Your task to perform on an android device: turn on improve location accuracy Image 0: 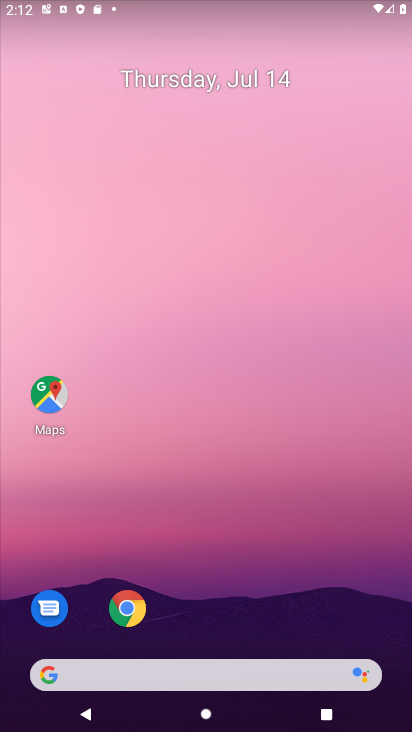
Step 0: drag from (381, 627) to (334, 187)
Your task to perform on an android device: turn on improve location accuracy Image 1: 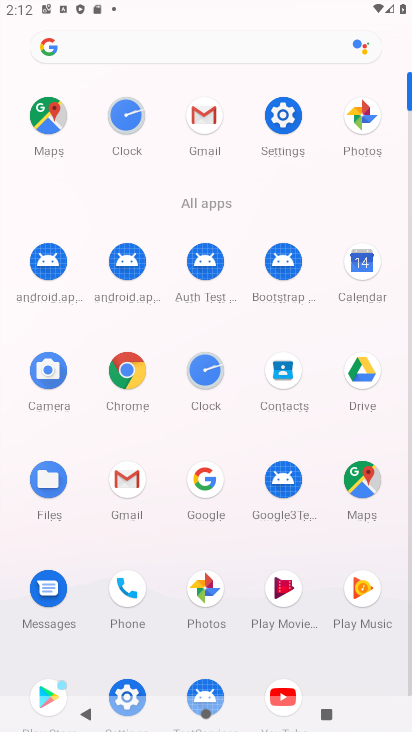
Step 1: click (125, 689)
Your task to perform on an android device: turn on improve location accuracy Image 2: 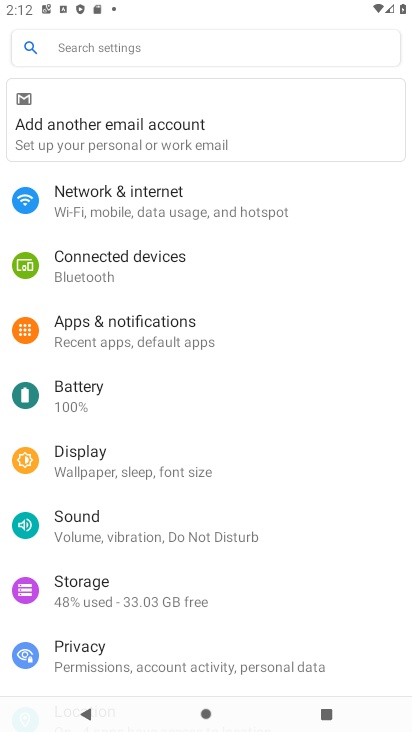
Step 2: drag from (348, 646) to (333, 257)
Your task to perform on an android device: turn on improve location accuracy Image 3: 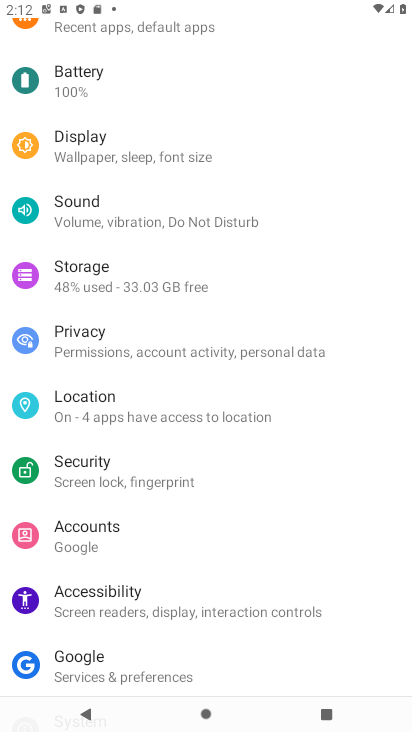
Step 3: drag from (296, 642) to (304, 501)
Your task to perform on an android device: turn on improve location accuracy Image 4: 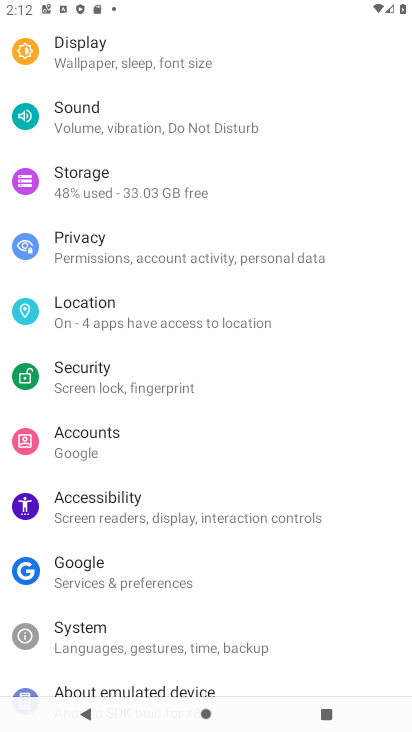
Step 4: click (71, 296)
Your task to perform on an android device: turn on improve location accuracy Image 5: 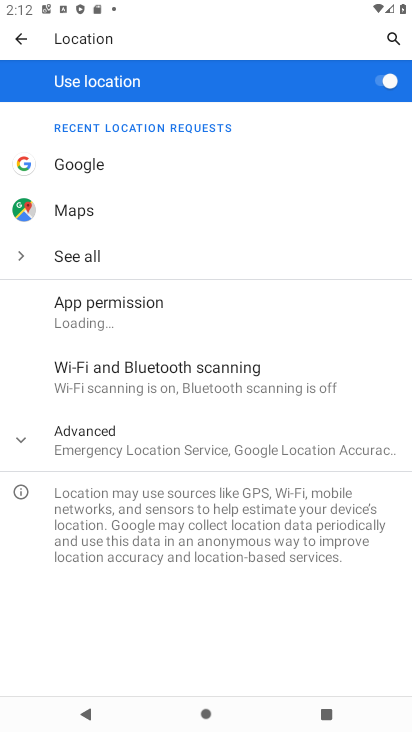
Step 5: click (11, 442)
Your task to perform on an android device: turn on improve location accuracy Image 6: 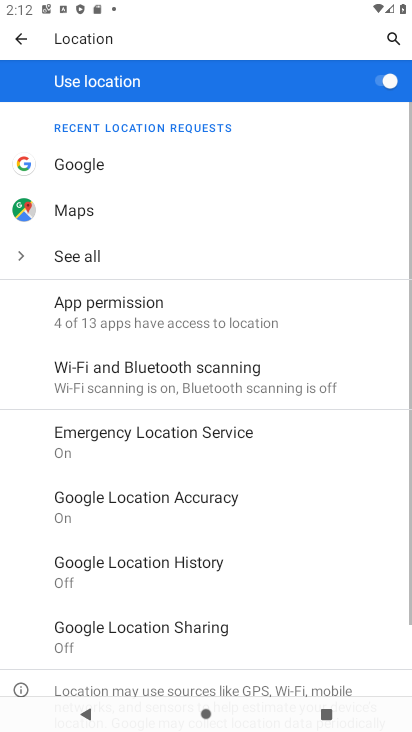
Step 6: click (105, 502)
Your task to perform on an android device: turn on improve location accuracy Image 7: 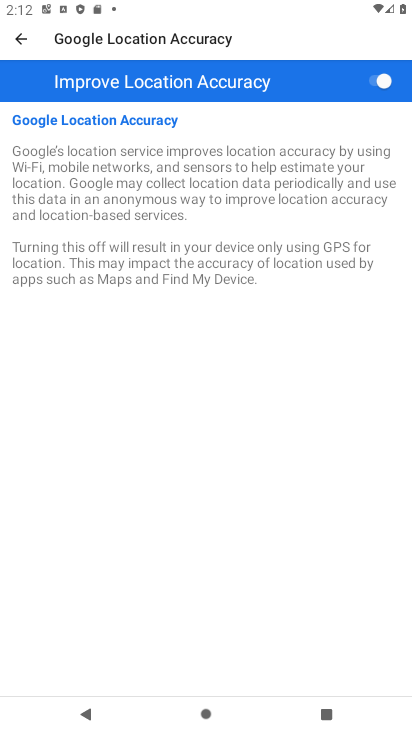
Step 7: task complete